Your task to perform on an android device: Open the map Image 0: 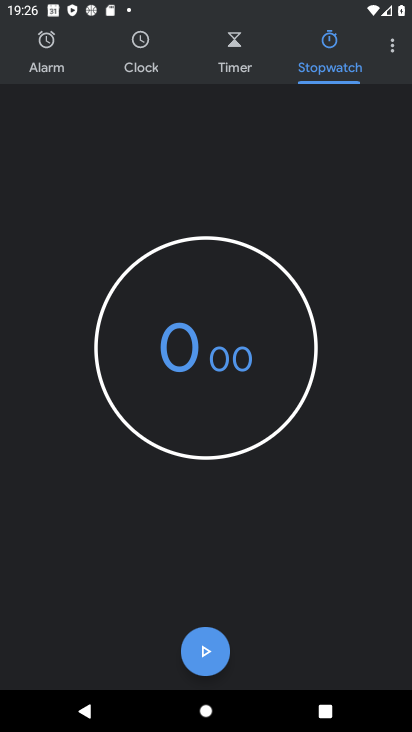
Step 0: press home button
Your task to perform on an android device: Open the map Image 1: 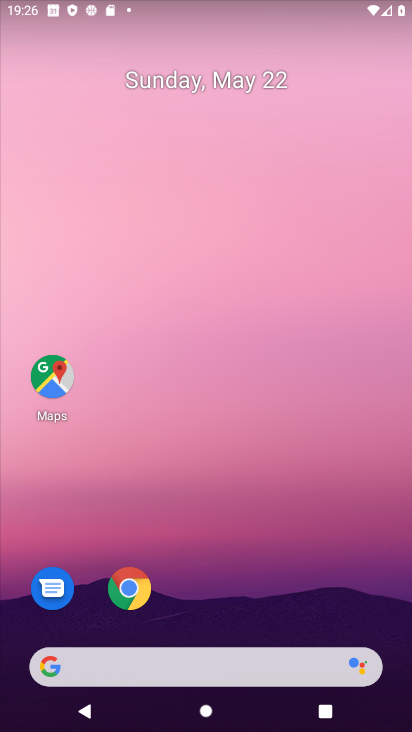
Step 1: click (49, 380)
Your task to perform on an android device: Open the map Image 2: 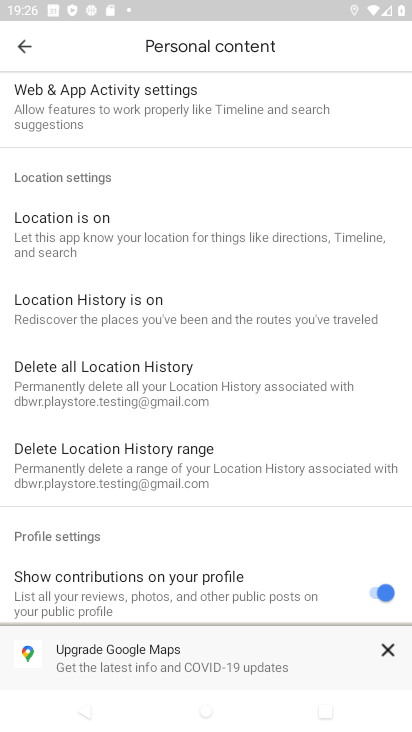
Step 2: click (22, 43)
Your task to perform on an android device: Open the map Image 3: 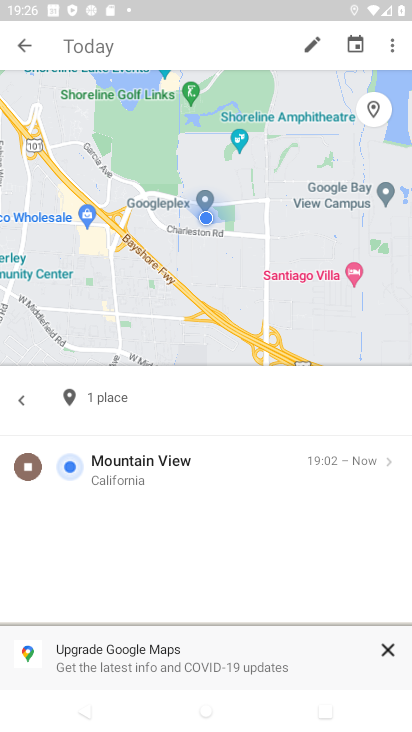
Step 3: click (20, 45)
Your task to perform on an android device: Open the map Image 4: 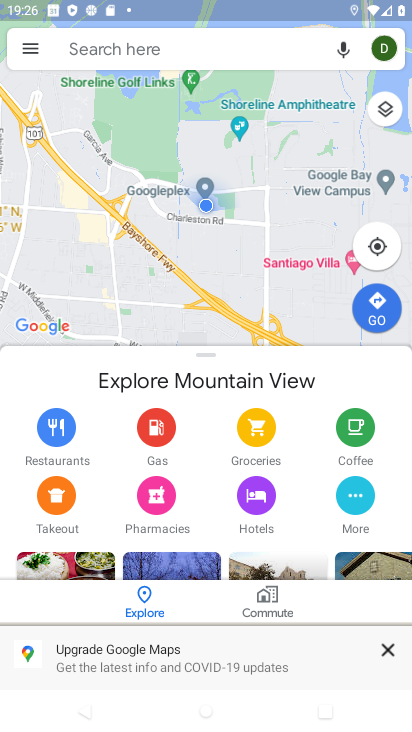
Step 4: task complete